Your task to perform on an android device: turn on data saver in the chrome app Image 0: 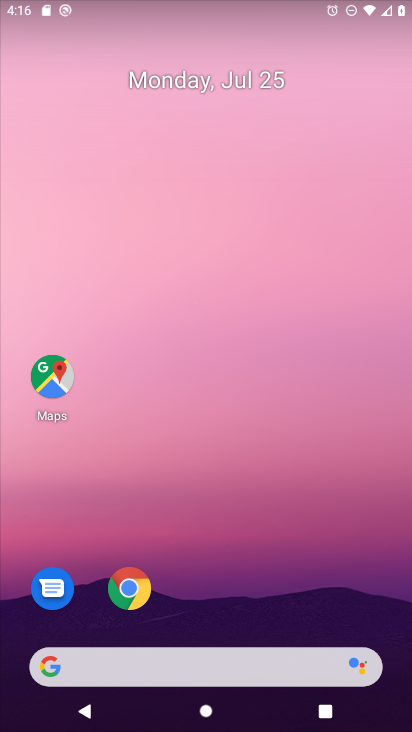
Step 0: drag from (237, 727) to (294, 53)
Your task to perform on an android device: turn on data saver in the chrome app Image 1: 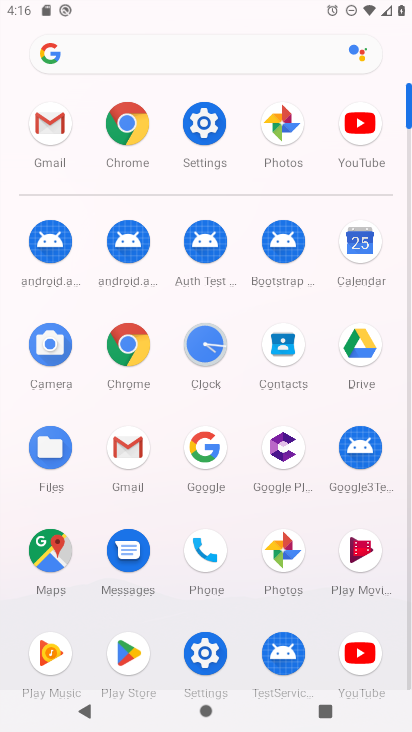
Step 1: click (129, 122)
Your task to perform on an android device: turn on data saver in the chrome app Image 2: 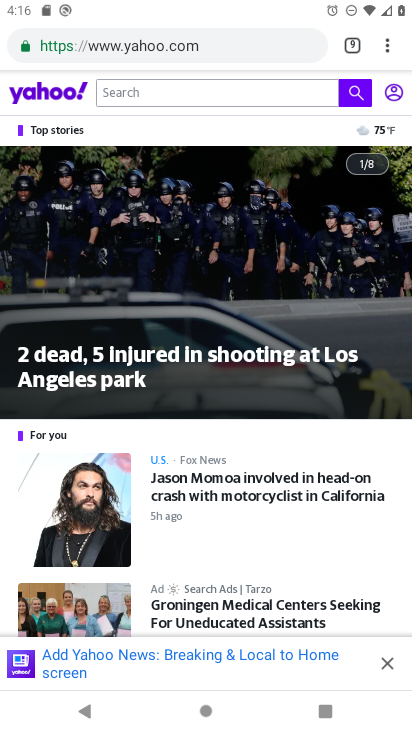
Step 2: click (388, 46)
Your task to perform on an android device: turn on data saver in the chrome app Image 3: 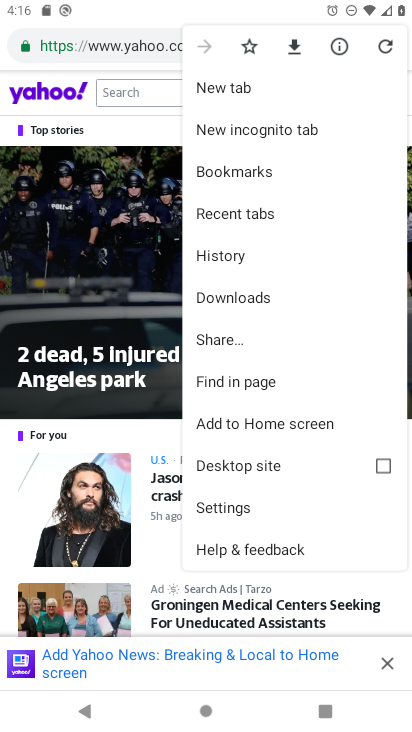
Step 3: click (243, 510)
Your task to perform on an android device: turn on data saver in the chrome app Image 4: 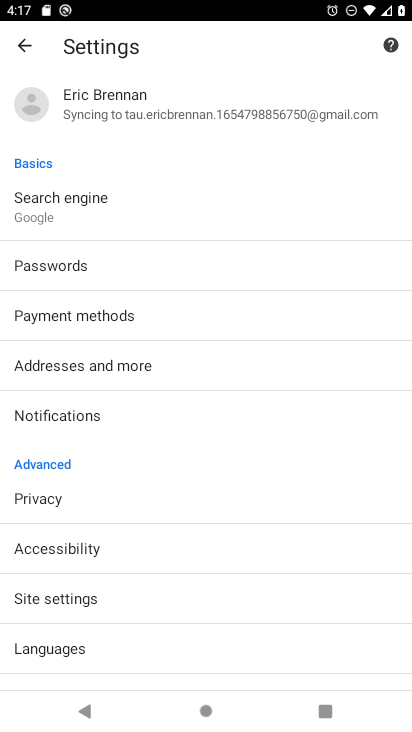
Step 4: drag from (92, 629) to (113, 333)
Your task to perform on an android device: turn on data saver in the chrome app Image 5: 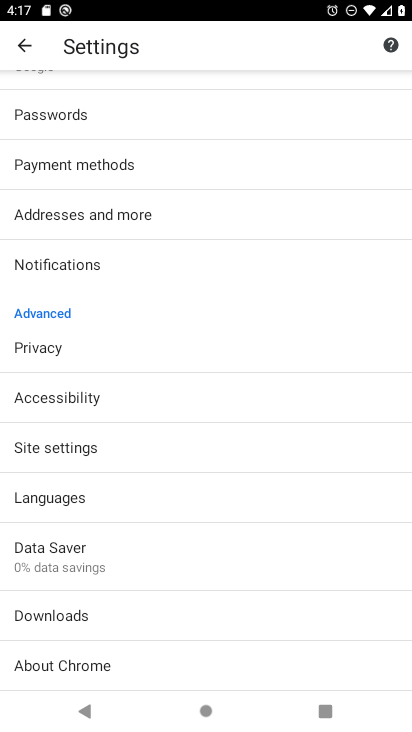
Step 5: click (62, 562)
Your task to perform on an android device: turn on data saver in the chrome app Image 6: 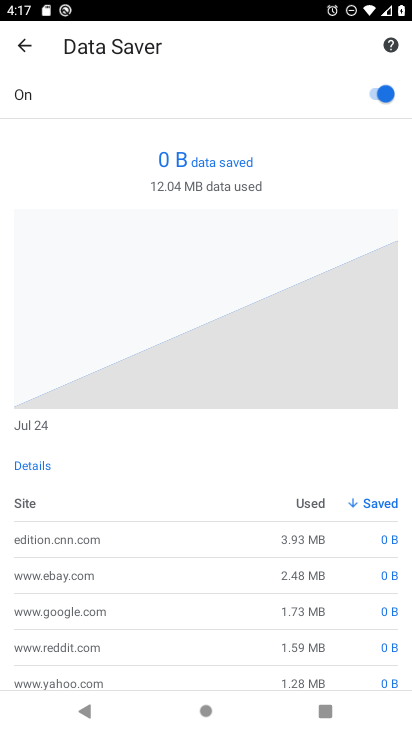
Step 6: task complete